Your task to perform on an android device: add a contact in the contacts app Image 0: 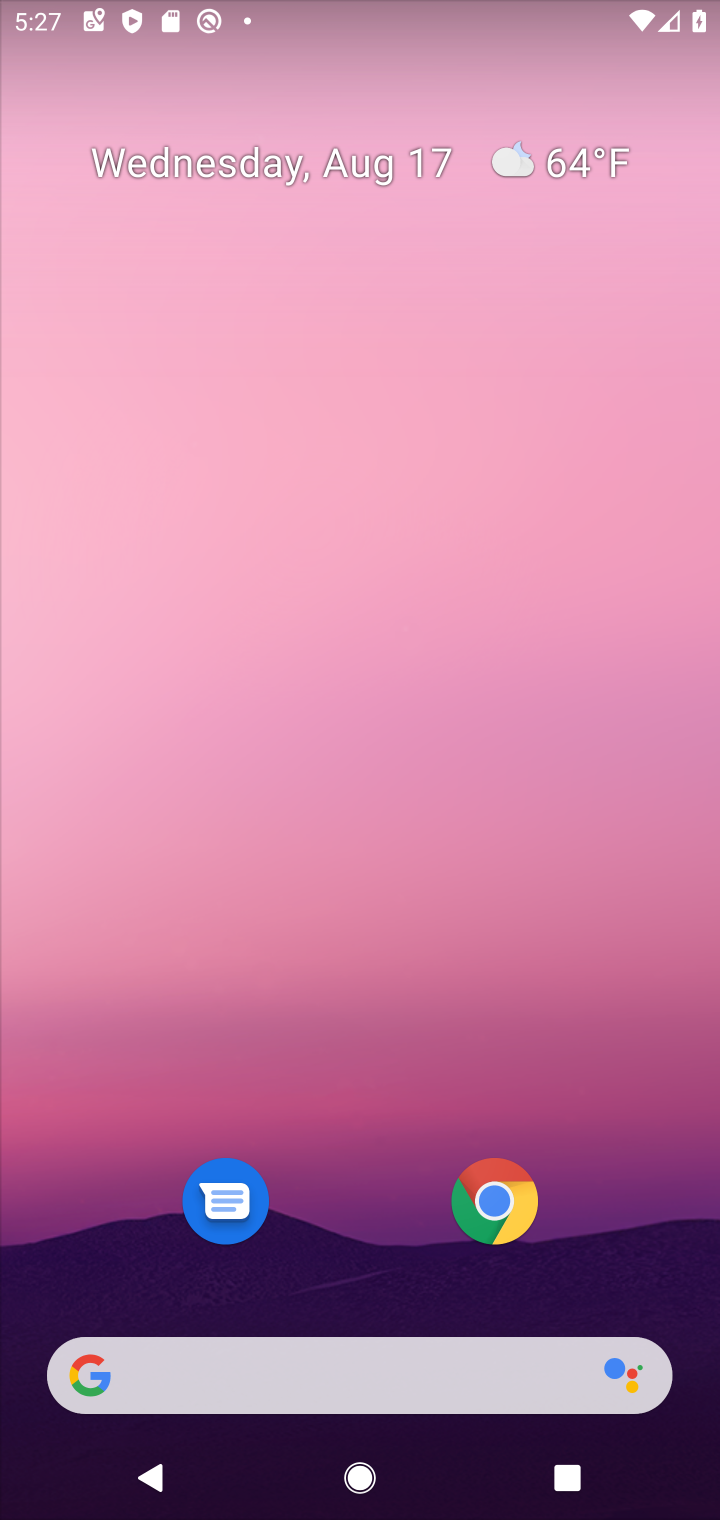
Step 0: drag from (329, 1251) to (525, 12)
Your task to perform on an android device: add a contact in the contacts app Image 1: 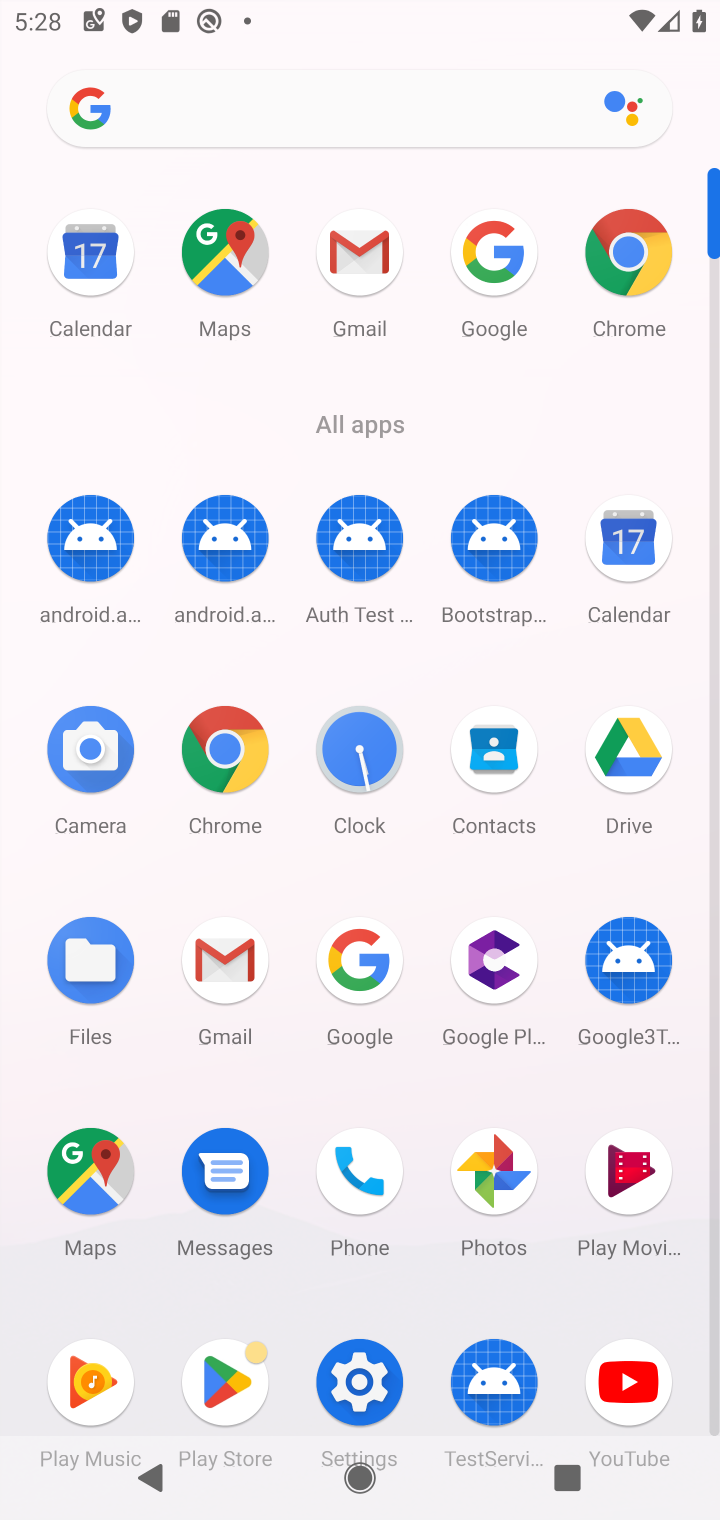
Step 1: click (500, 731)
Your task to perform on an android device: add a contact in the contacts app Image 2: 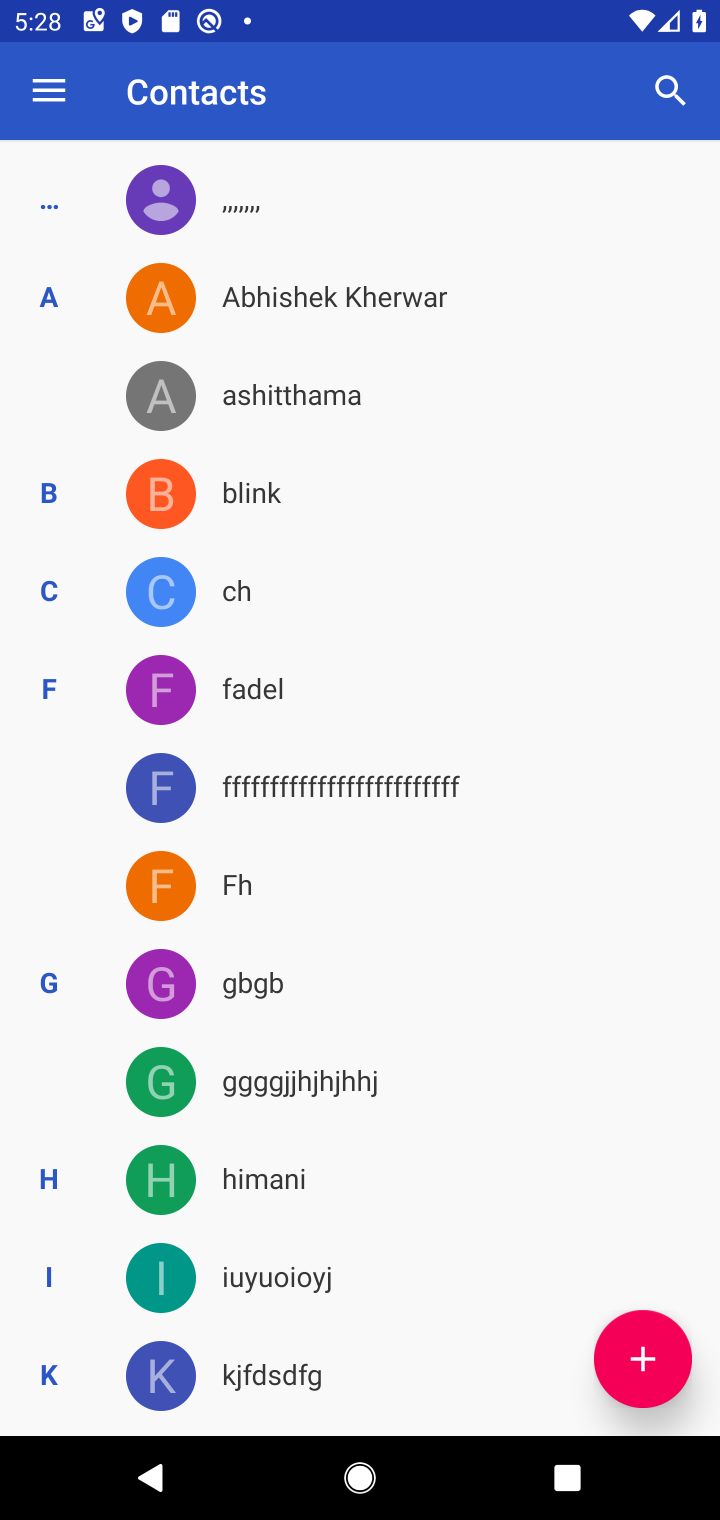
Step 2: click (661, 1379)
Your task to perform on an android device: add a contact in the contacts app Image 3: 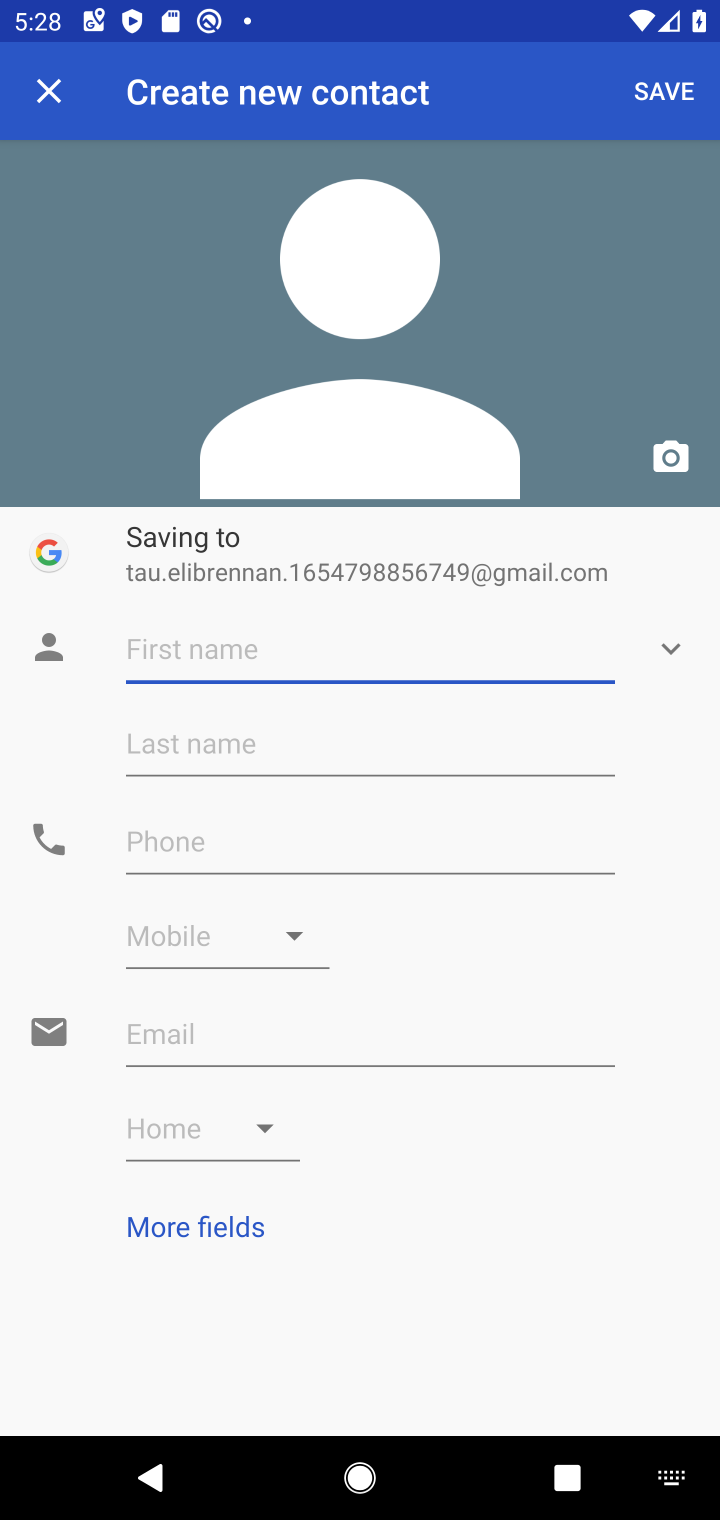
Step 3: type "jhkjkjk"
Your task to perform on an android device: add a contact in the contacts app Image 4: 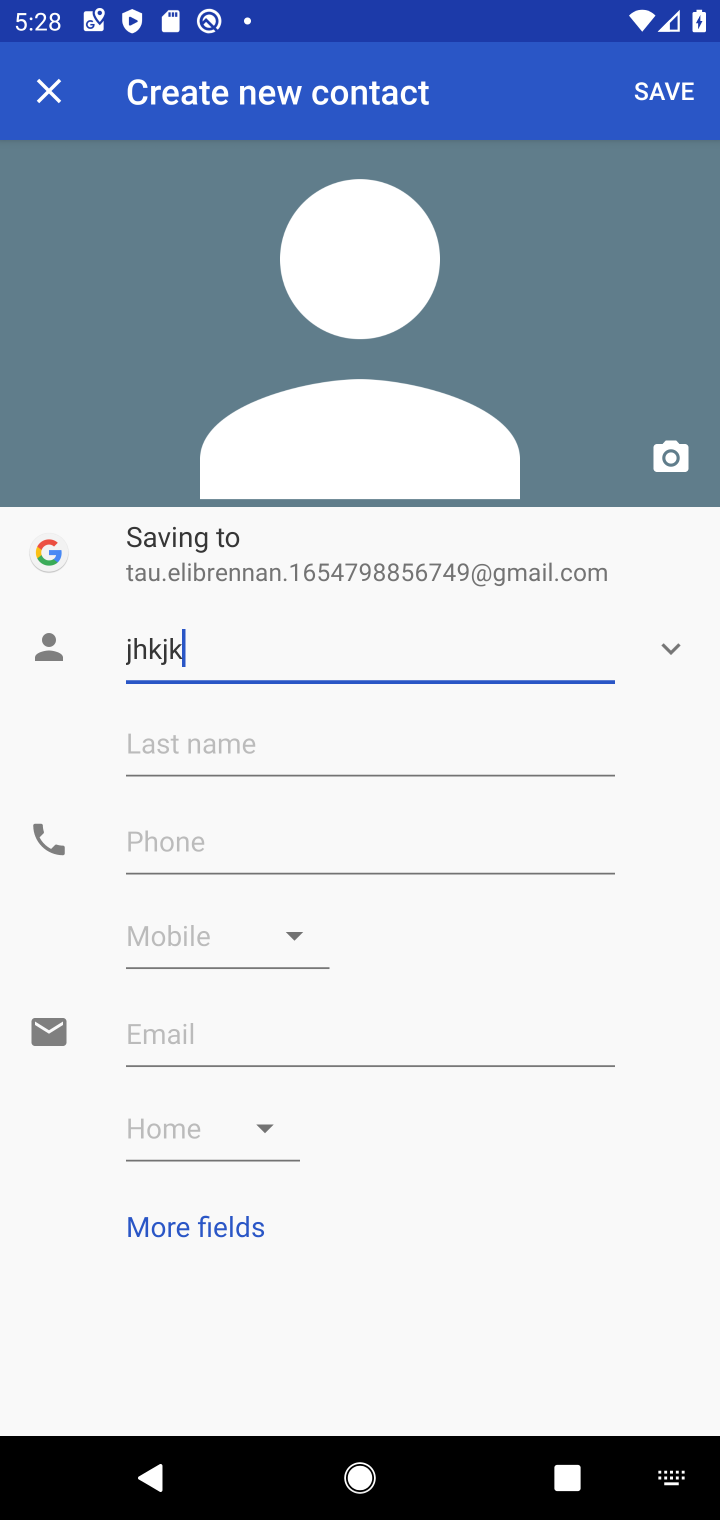
Step 4: press enter
Your task to perform on an android device: add a contact in the contacts app Image 5: 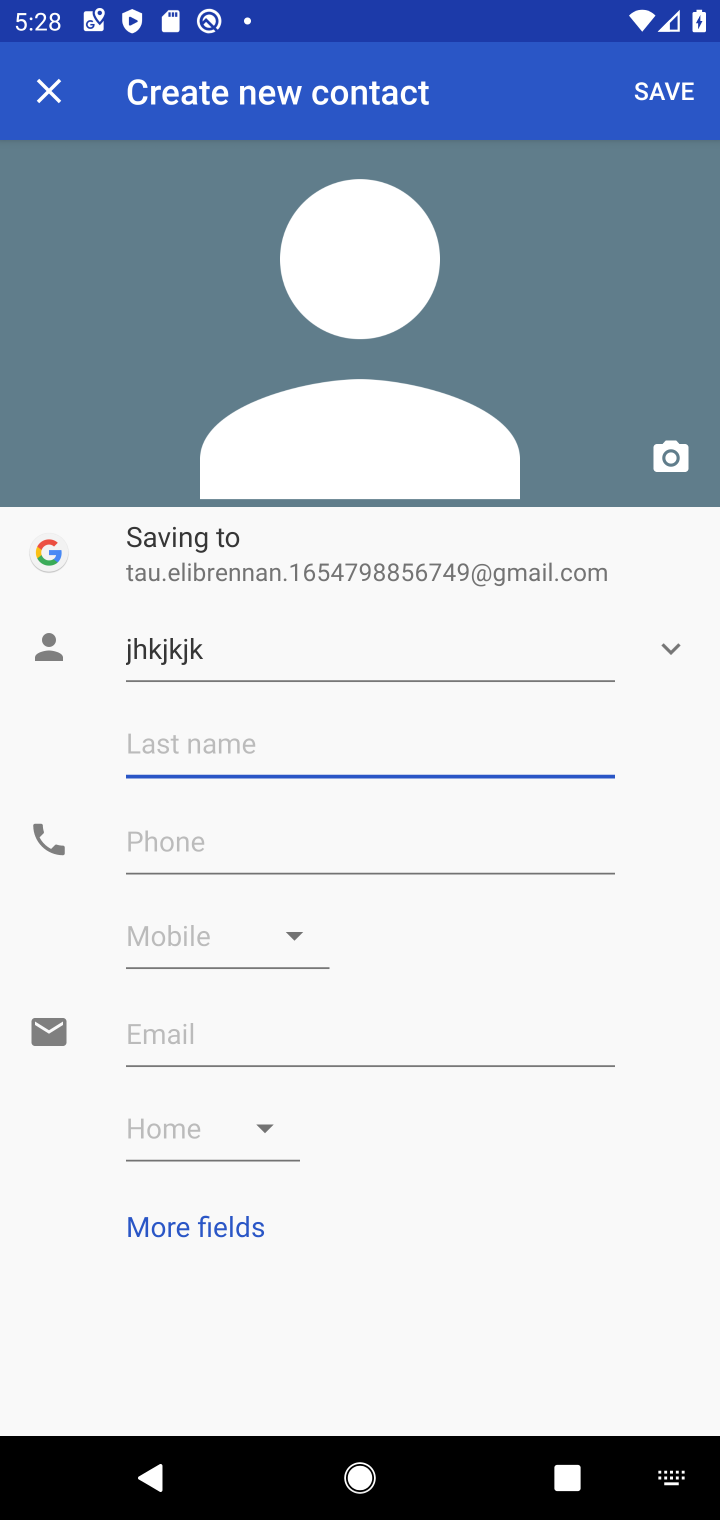
Step 5: click (228, 824)
Your task to perform on an android device: add a contact in the contacts app Image 6: 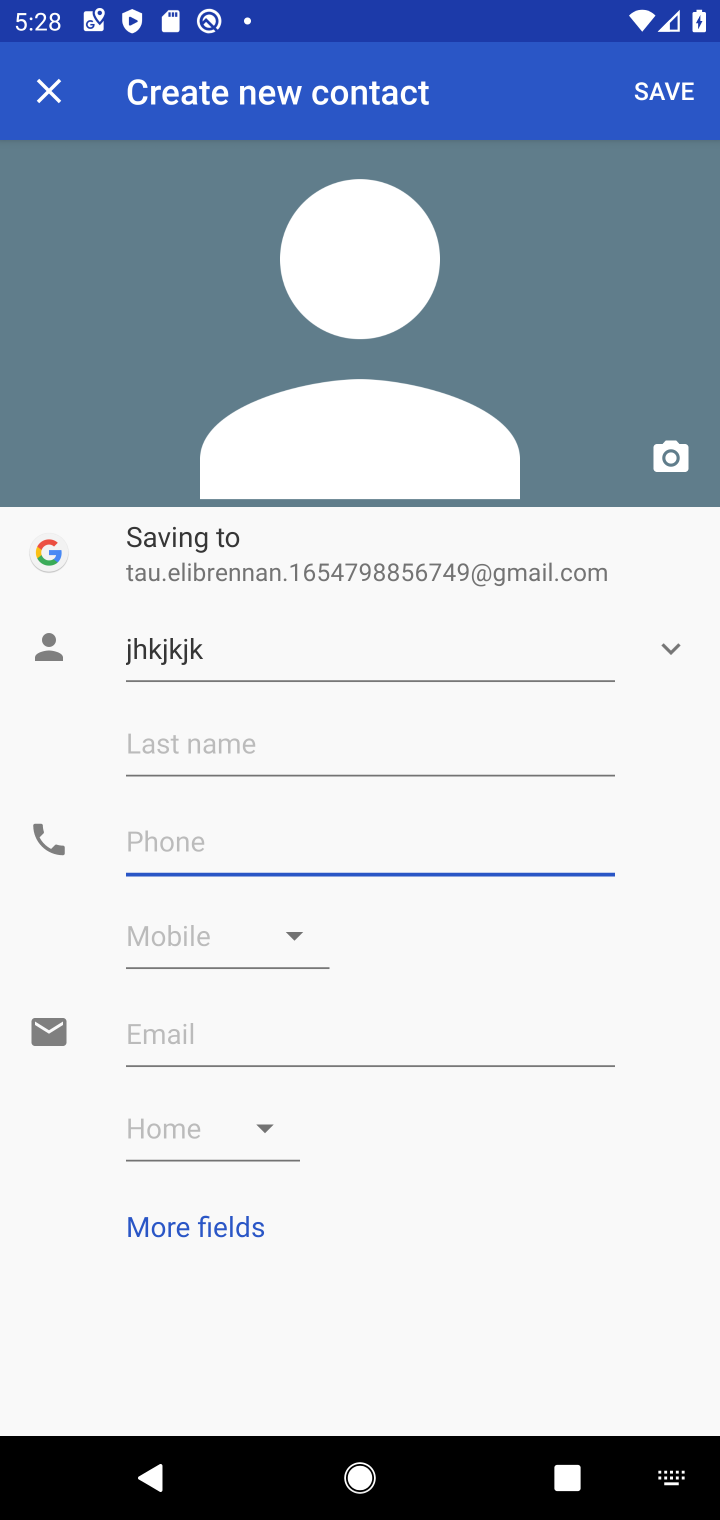
Step 6: press enter
Your task to perform on an android device: add a contact in the contacts app Image 7: 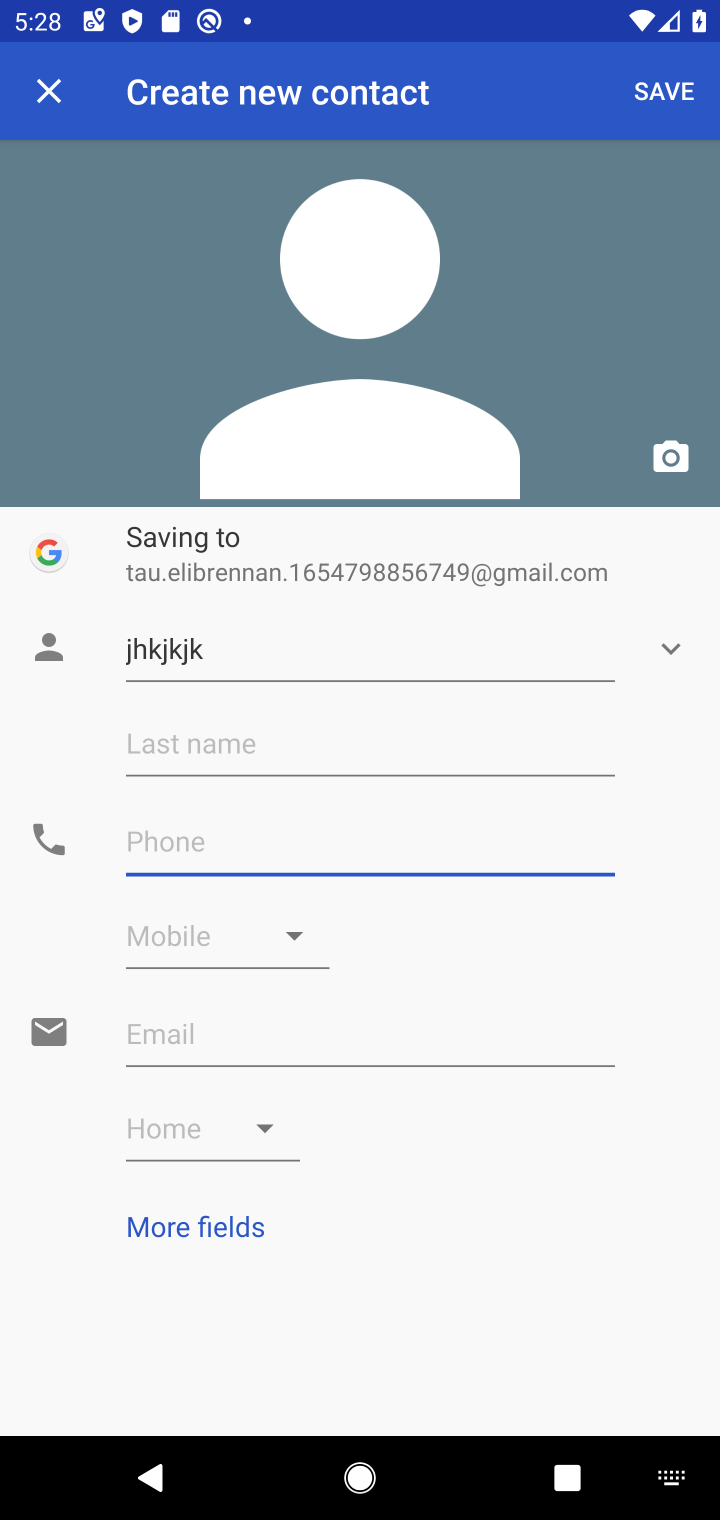
Step 7: type "878787"
Your task to perform on an android device: add a contact in the contacts app Image 8: 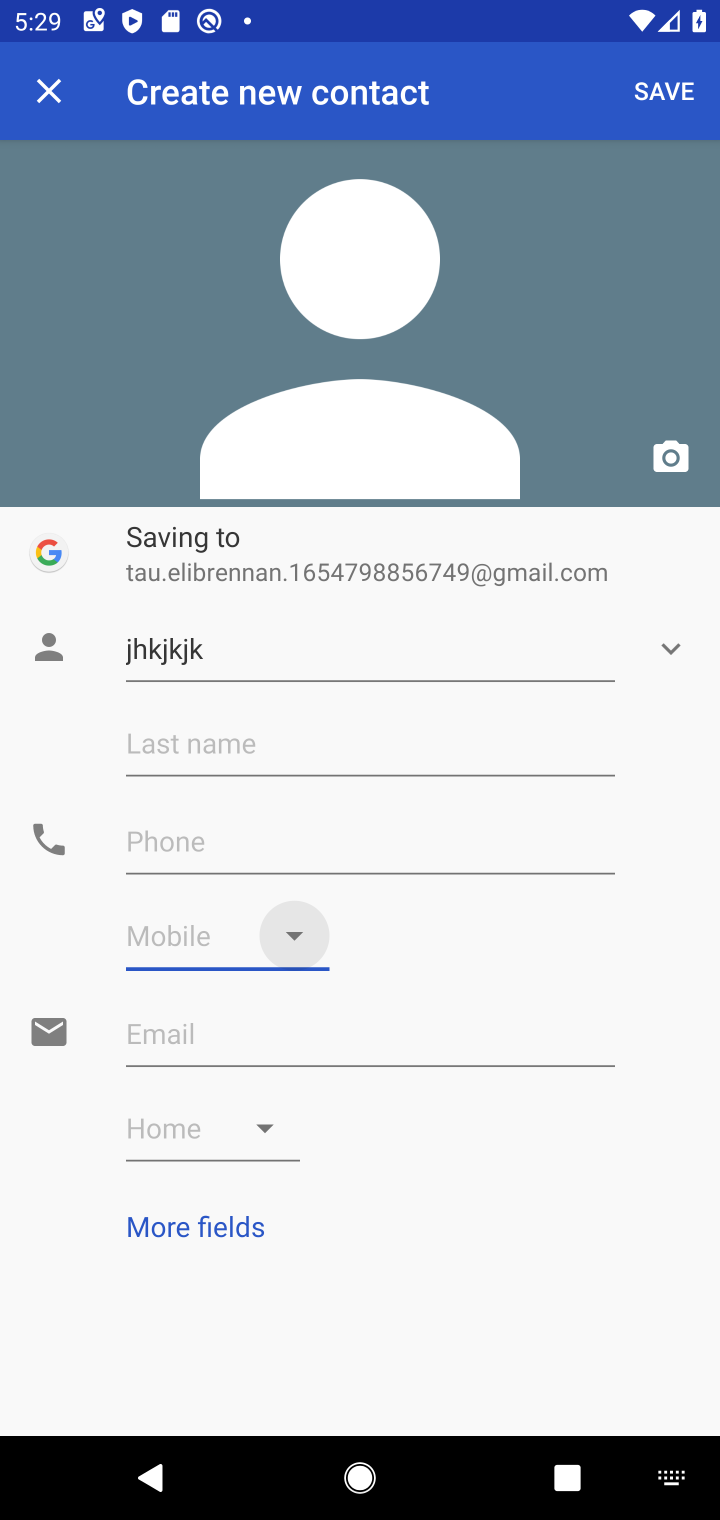
Step 8: click (185, 841)
Your task to perform on an android device: add a contact in the contacts app Image 9: 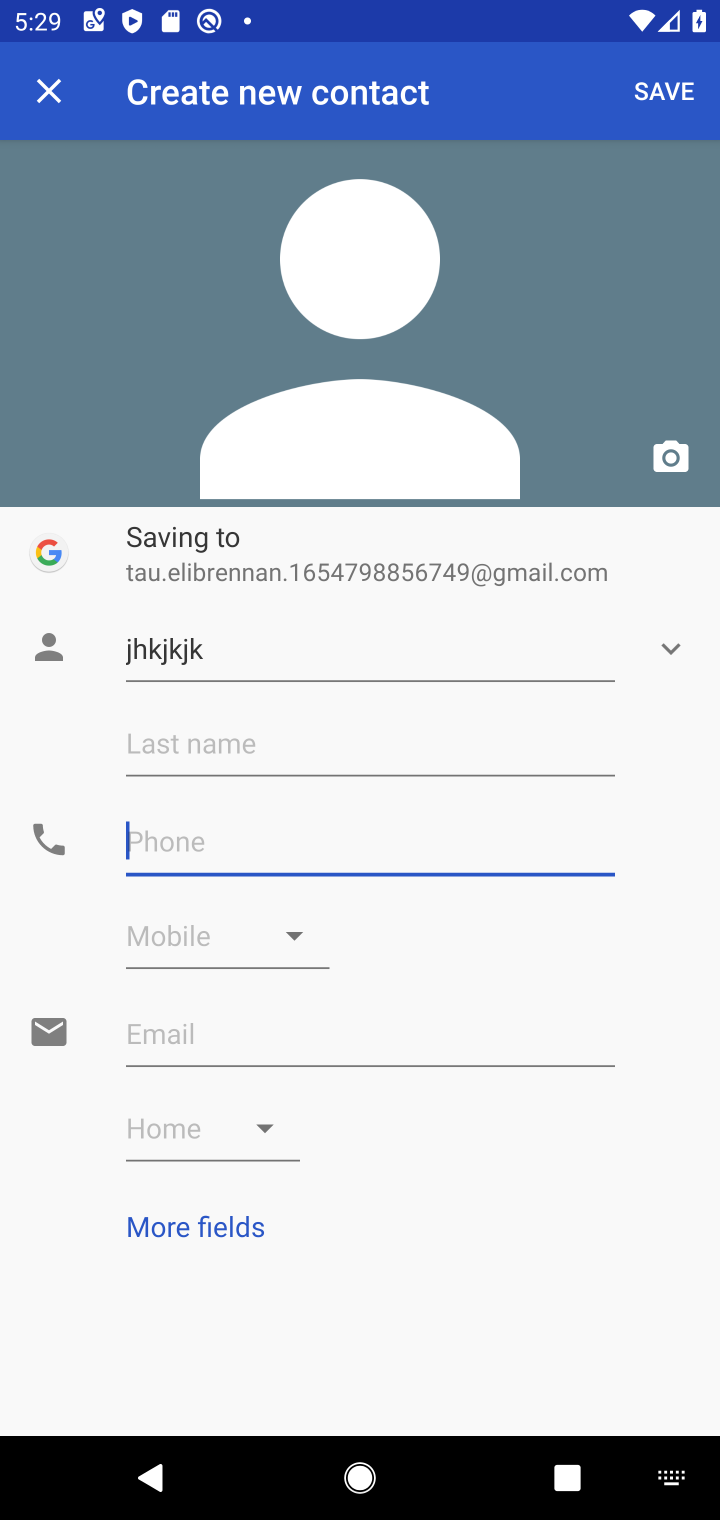
Step 9: press enter
Your task to perform on an android device: add a contact in the contacts app Image 10: 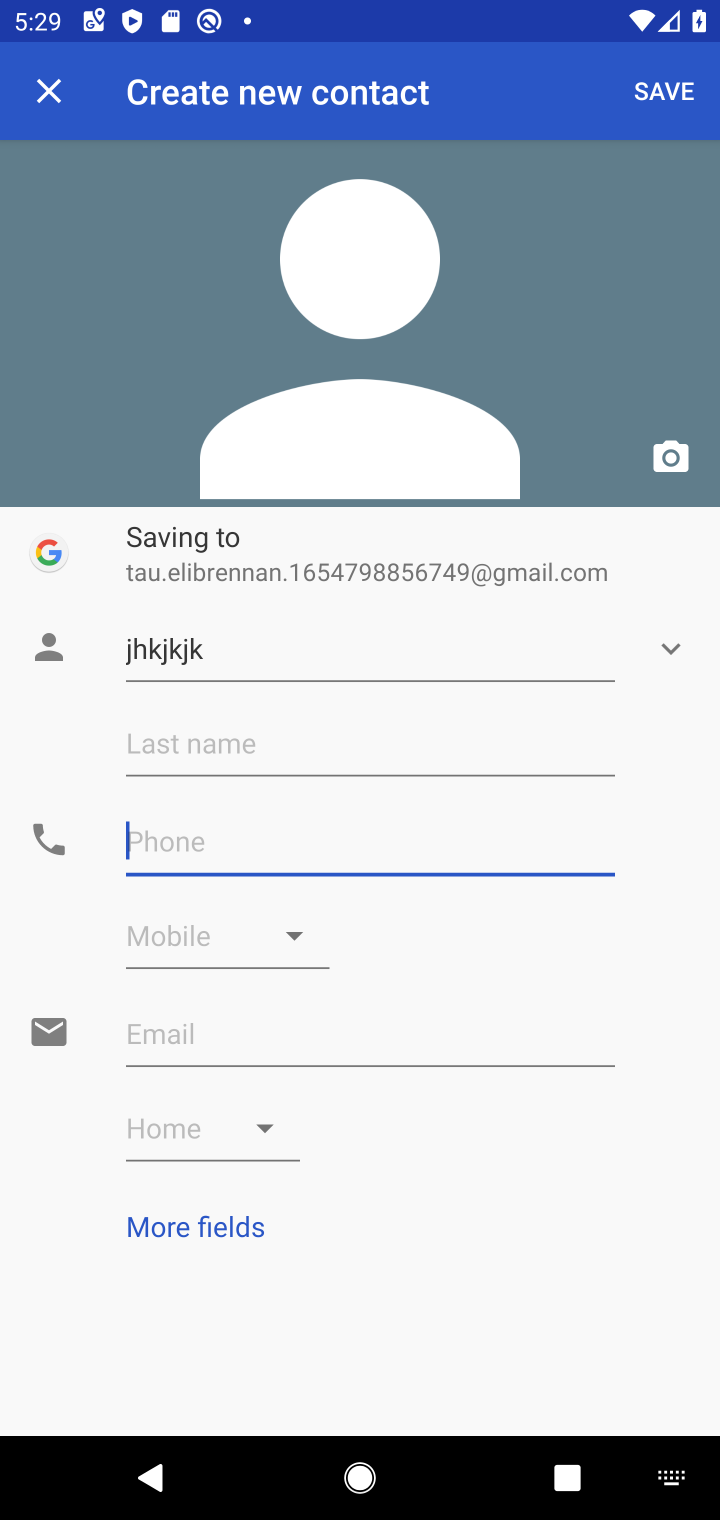
Step 10: type "87879879"
Your task to perform on an android device: add a contact in the contacts app Image 11: 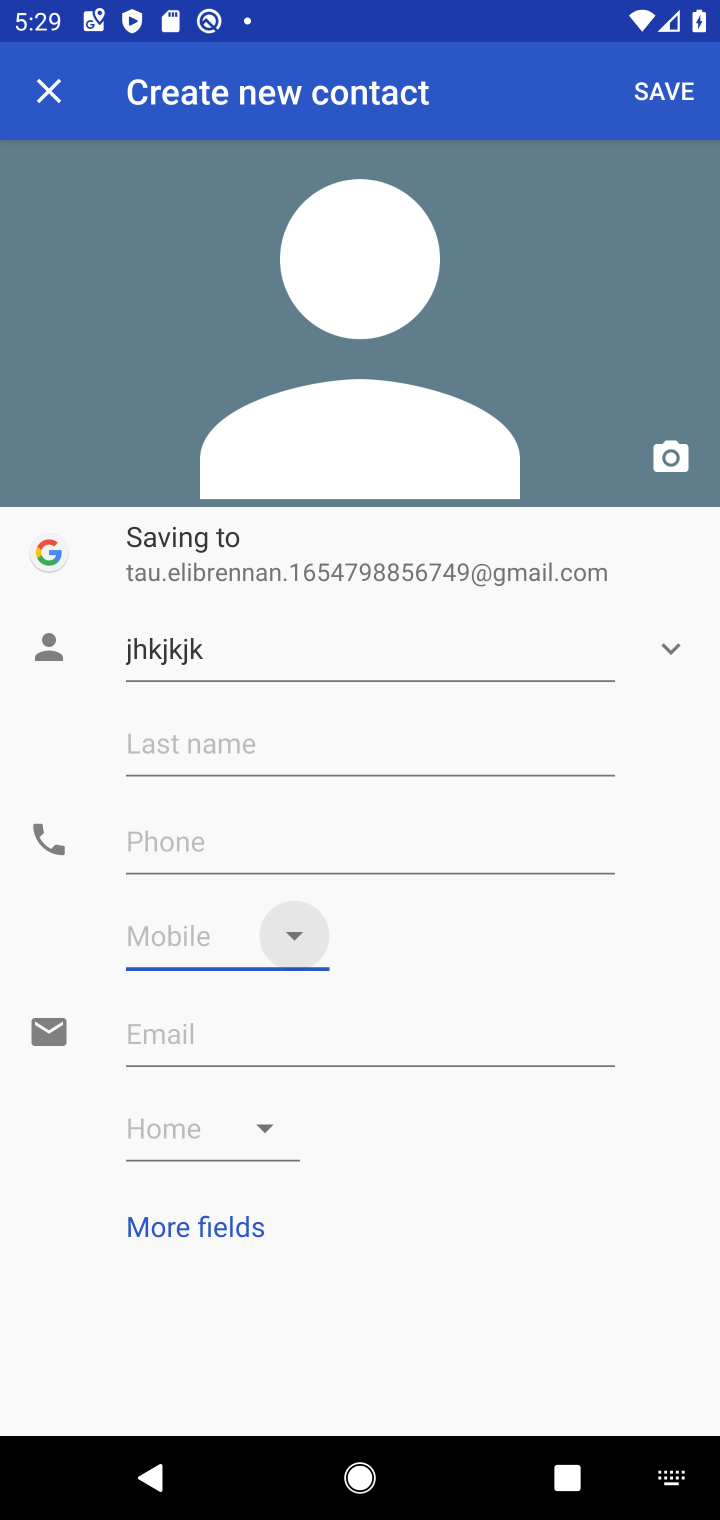
Step 11: click (168, 833)
Your task to perform on an android device: add a contact in the contacts app Image 12: 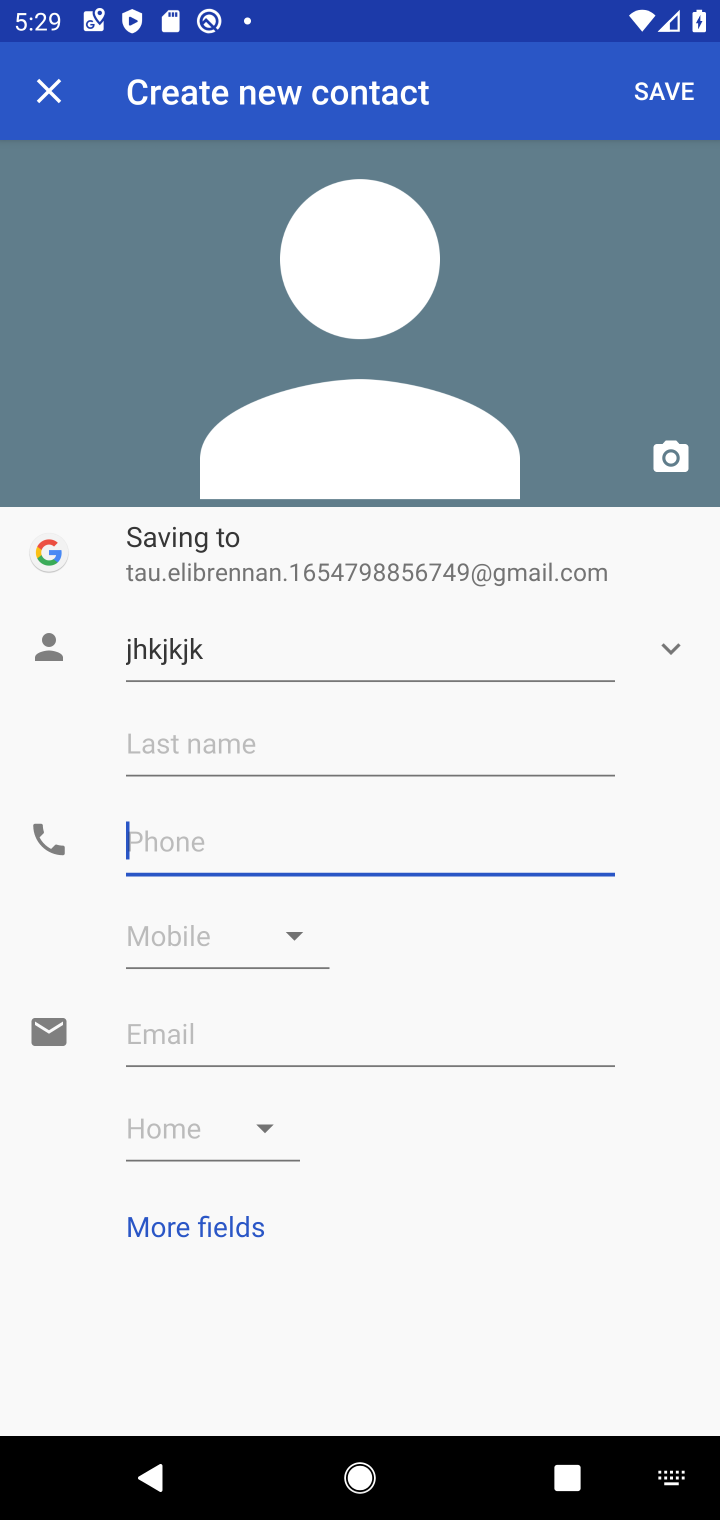
Step 12: click (176, 950)
Your task to perform on an android device: add a contact in the contacts app Image 13: 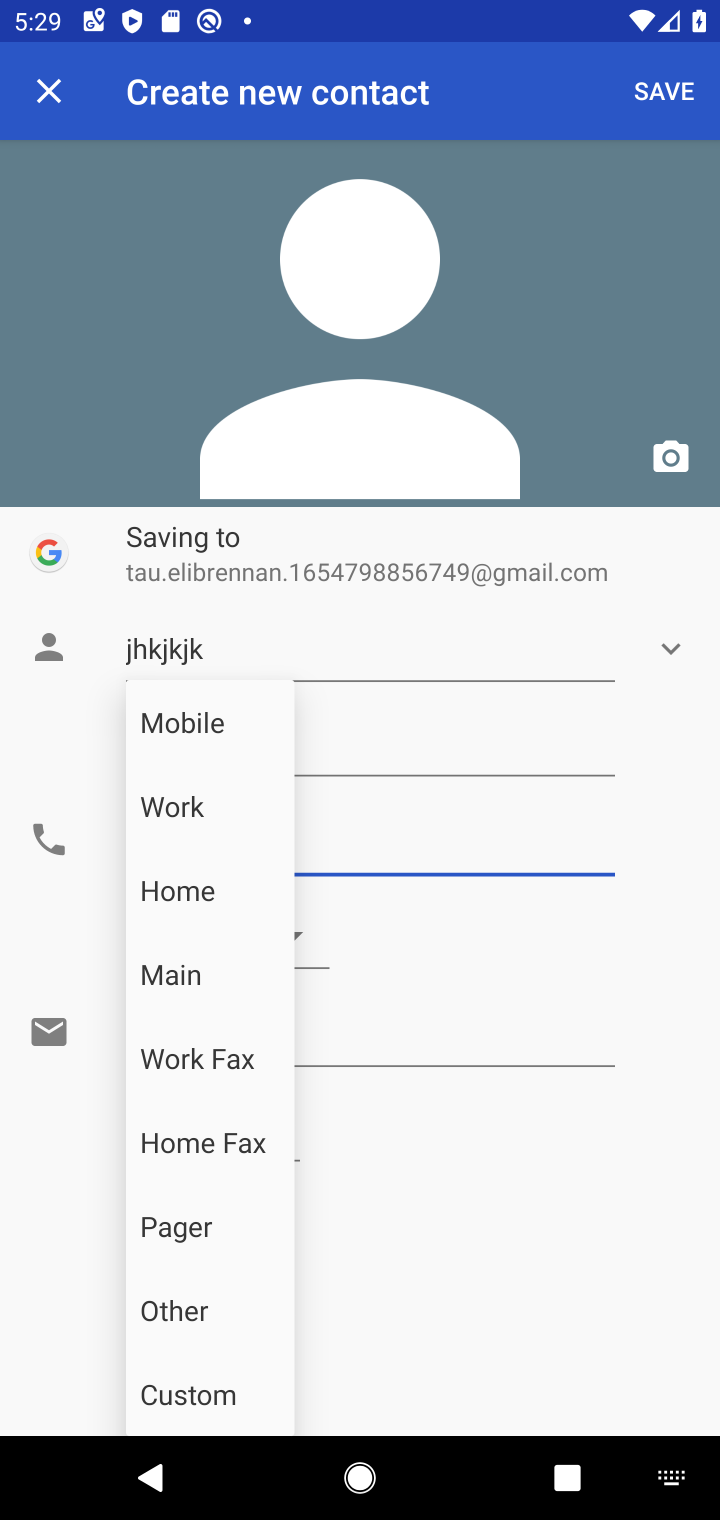
Step 13: click (441, 828)
Your task to perform on an android device: add a contact in the contacts app Image 14: 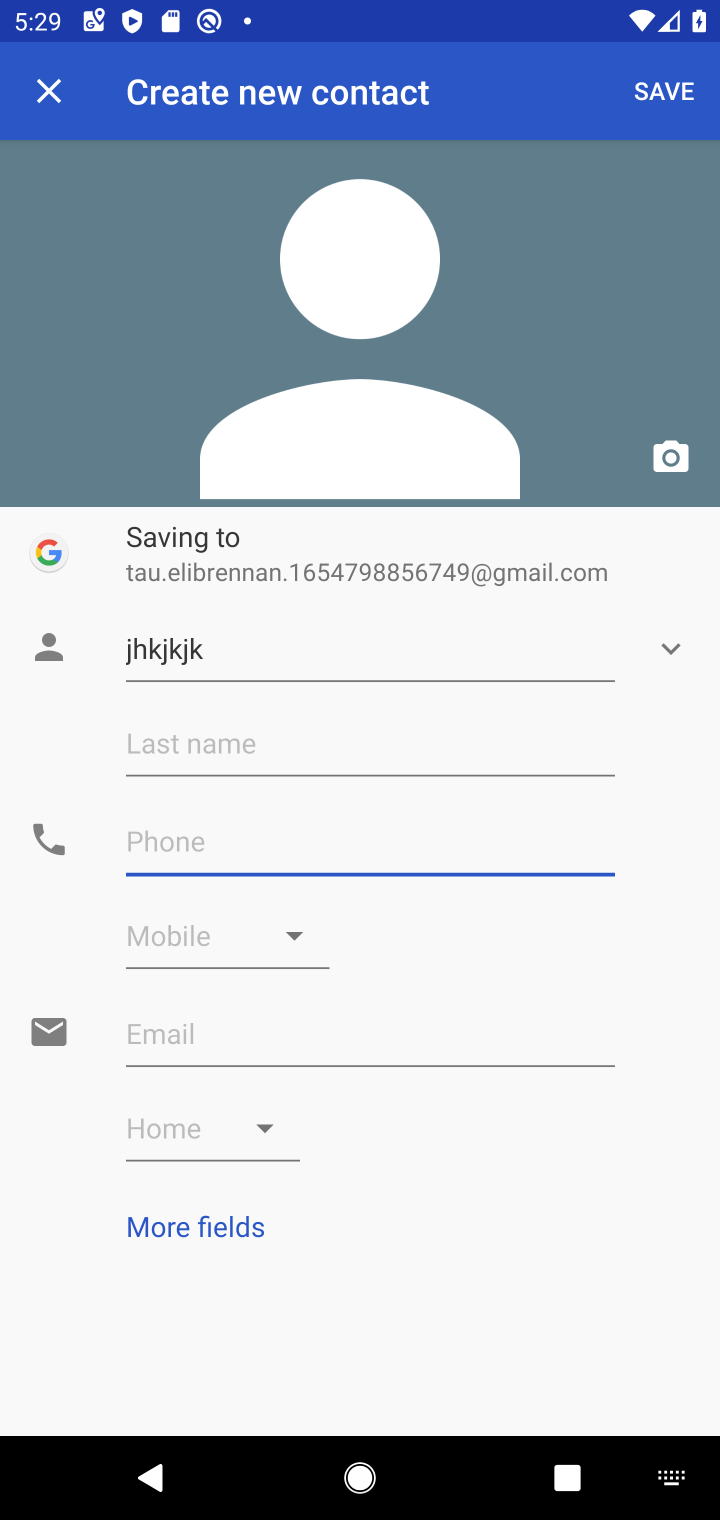
Step 14: type "67676"
Your task to perform on an android device: add a contact in the contacts app Image 15: 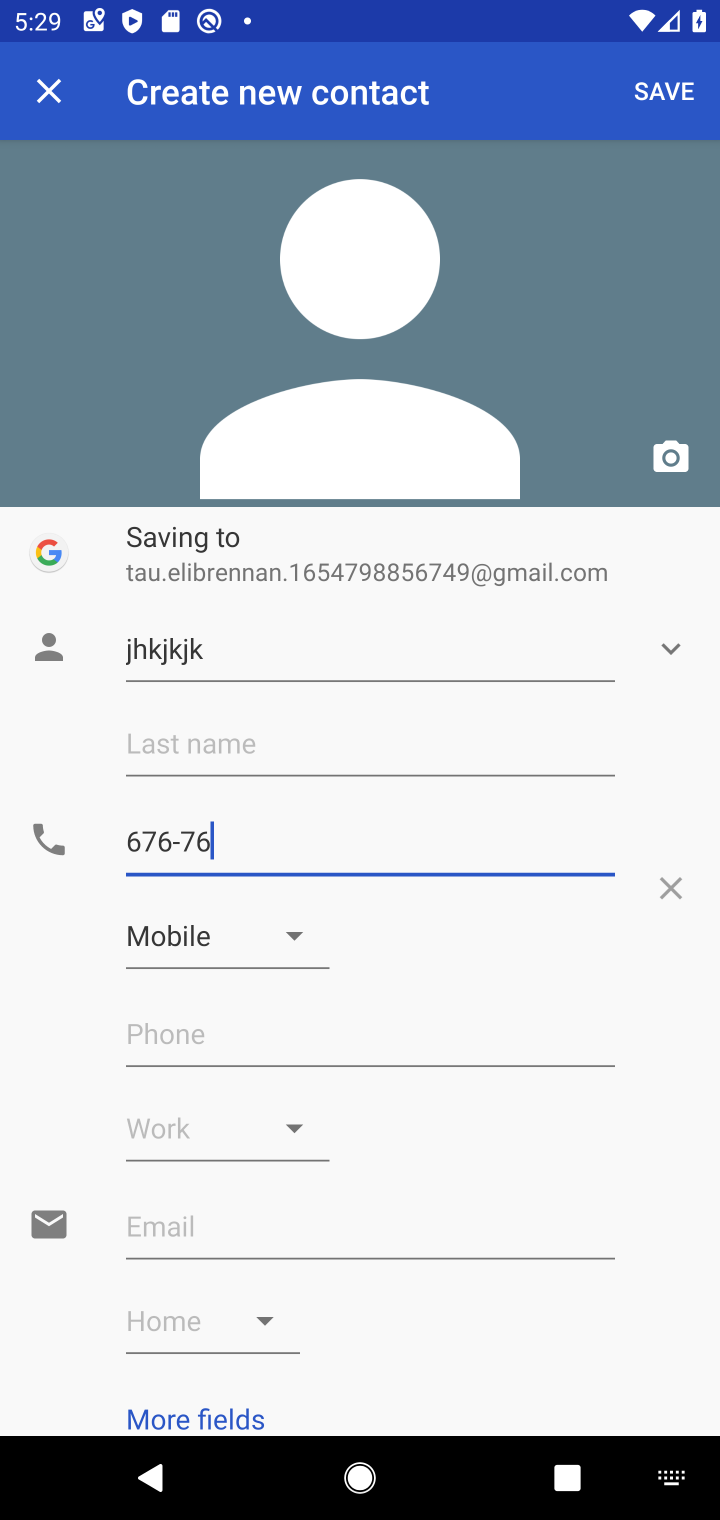
Step 15: press enter
Your task to perform on an android device: add a contact in the contacts app Image 16: 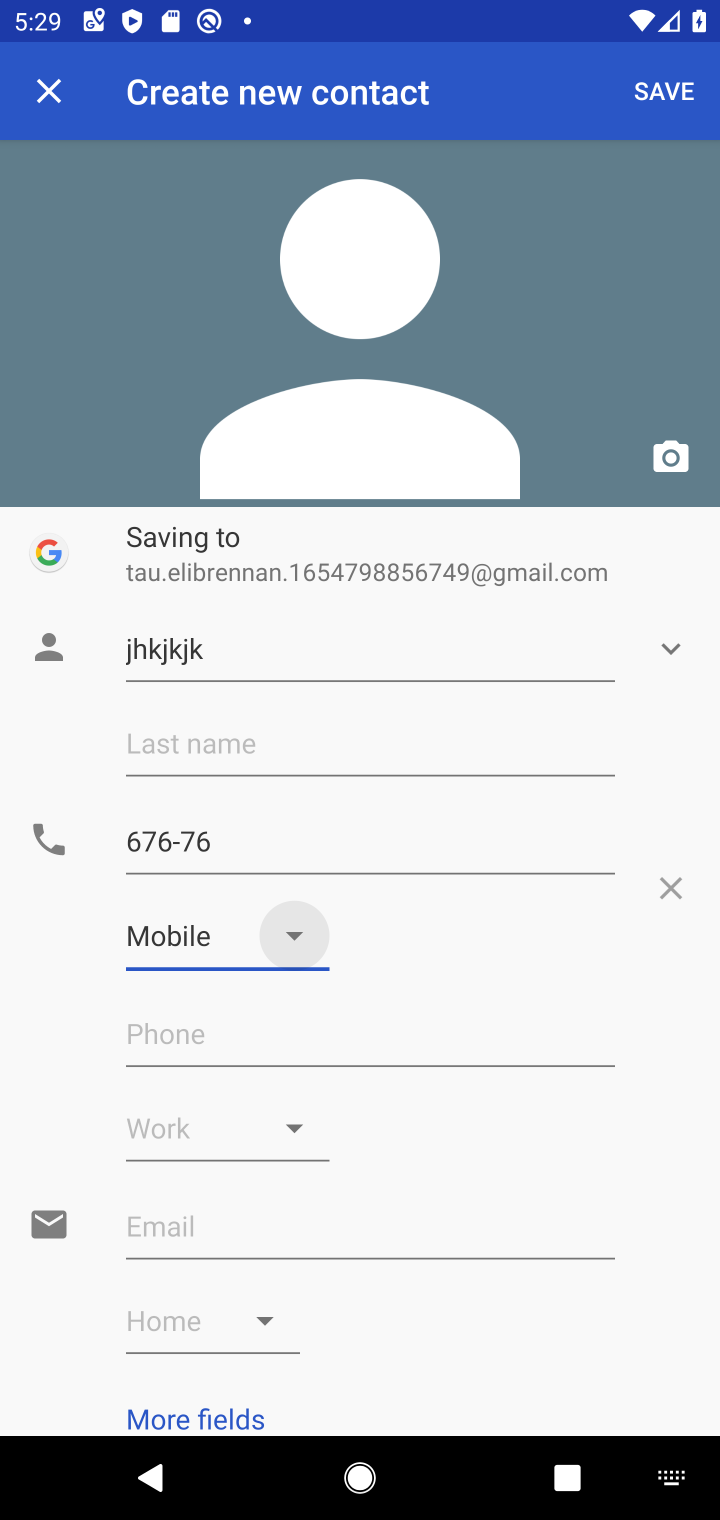
Step 16: click (660, 101)
Your task to perform on an android device: add a contact in the contacts app Image 17: 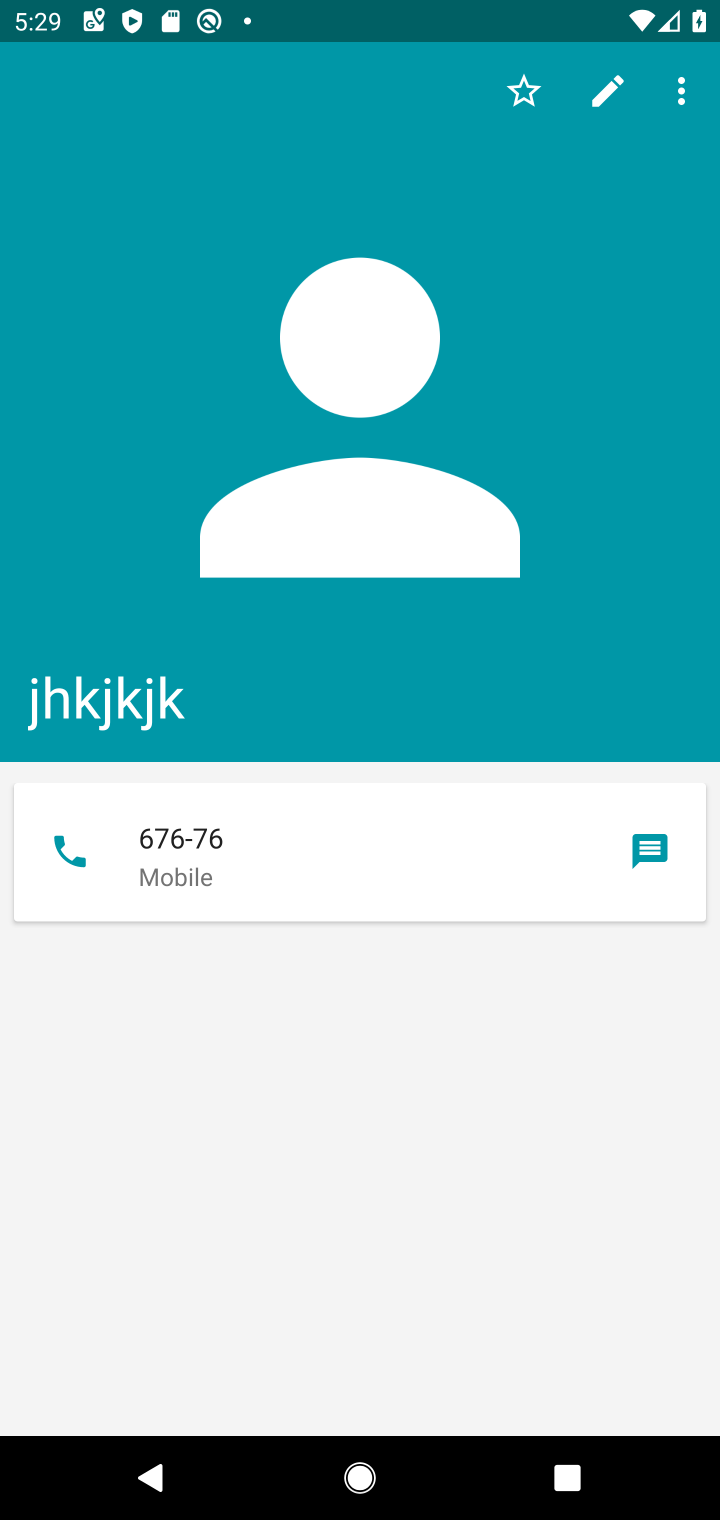
Step 17: task complete